Your task to perform on an android device: Show me the alarms in the clock app Image 0: 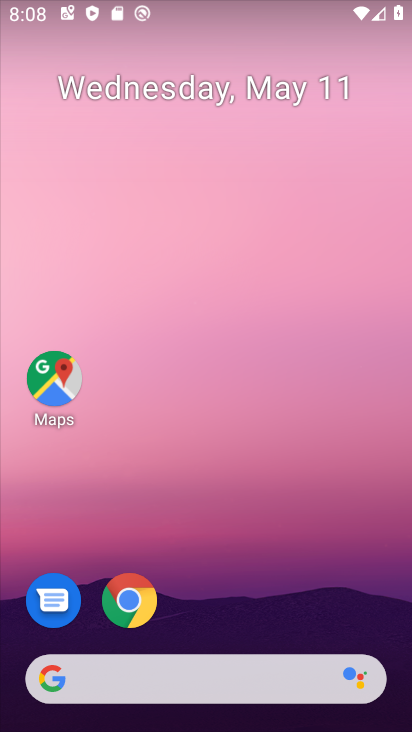
Step 0: drag from (281, 612) to (228, 0)
Your task to perform on an android device: Show me the alarms in the clock app Image 1: 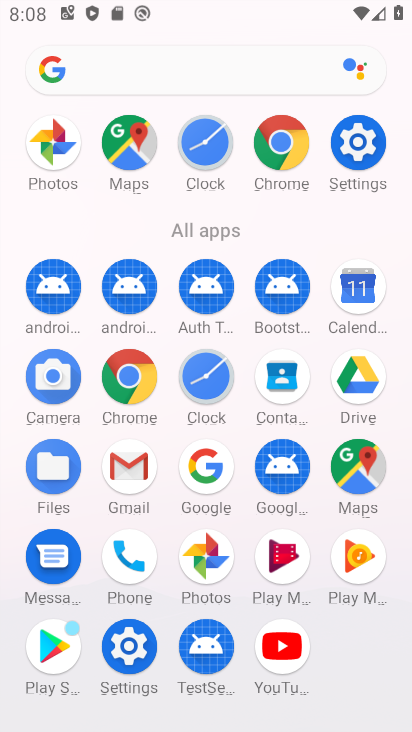
Step 1: click (205, 378)
Your task to perform on an android device: Show me the alarms in the clock app Image 2: 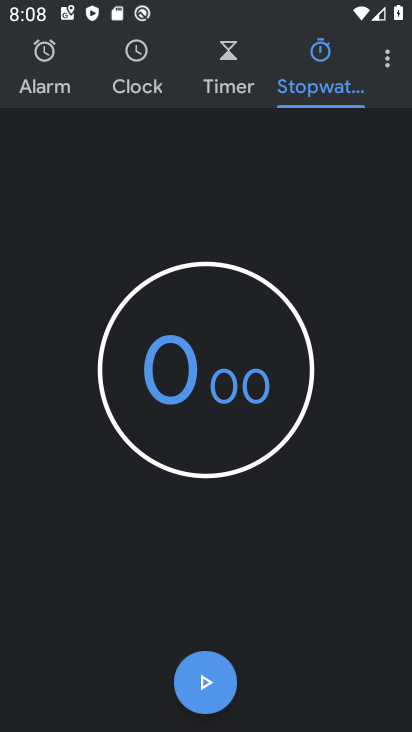
Step 2: click (44, 50)
Your task to perform on an android device: Show me the alarms in the clock app Image 3: 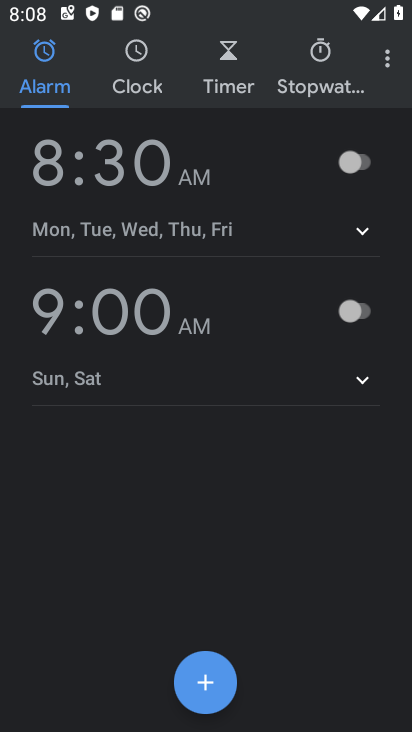
Step 3: task complete